Your task to perform on an android device: turn on airplane mode Image 0: 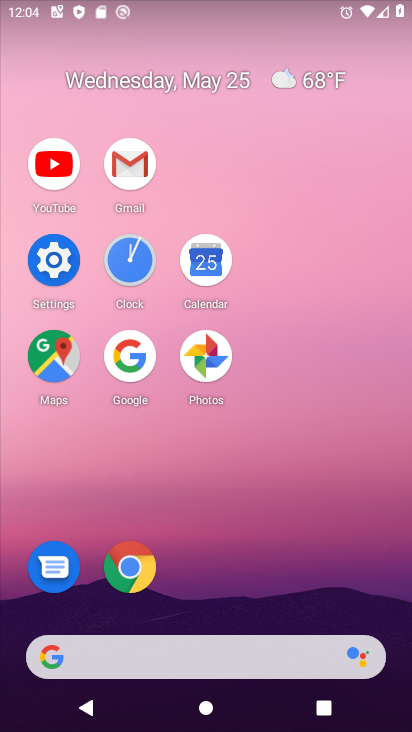
Step 0: click (72, 269)
Your task to perform on an android device: turn on airplane mode Image 1: 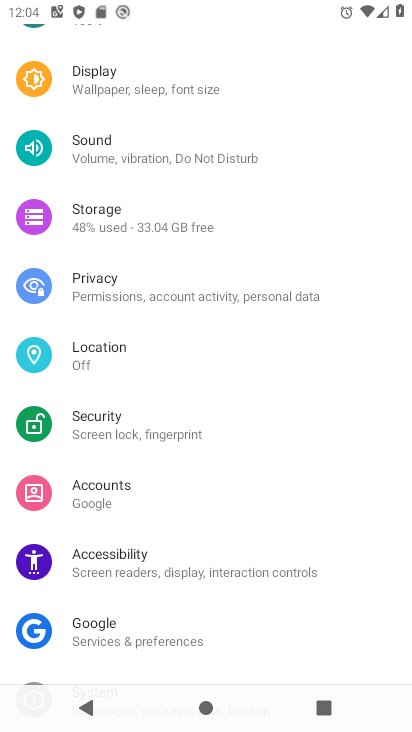
Step 1: drag from (279, 145) to (245, 513)
Your task to perform on an android device: turn on airplane mode Image 2: 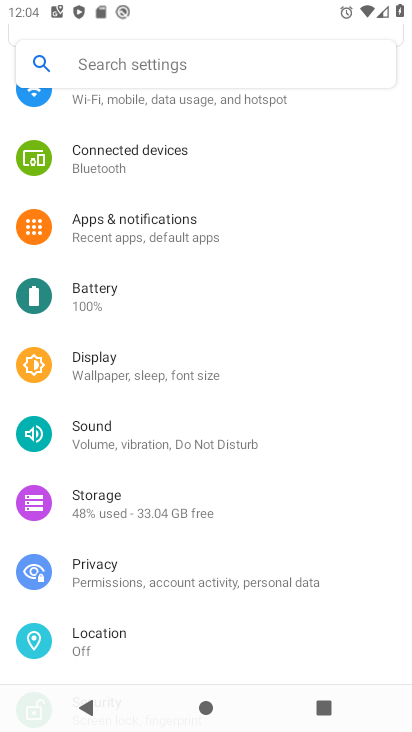
Step 2: drag from (182, 181) to (162, 515)
Your task to perform on an android device: turn on airplane mode Image 3: 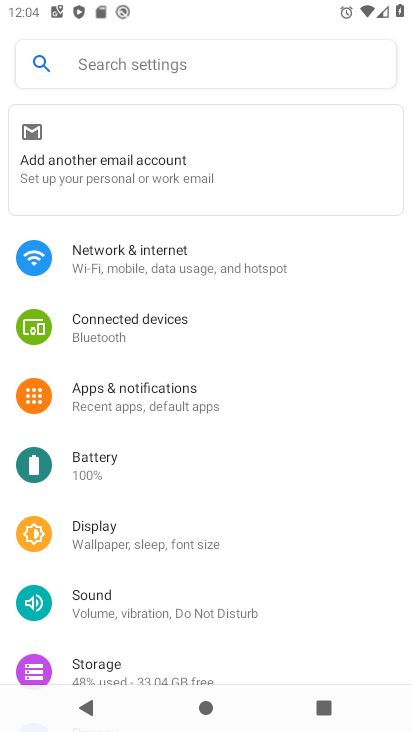
Step 3: click (170, 270)
Your task to perform on an android device: turn on airplane mode Image 4: 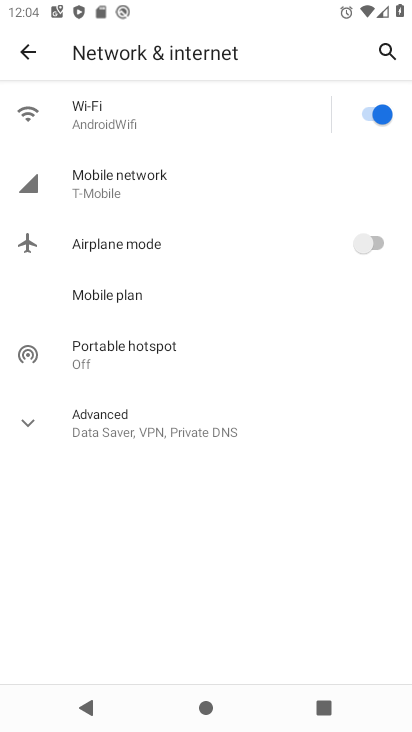
Step 4: click (148, 234)
Your task to perform on an android device: turn on airplane mode Image 5: 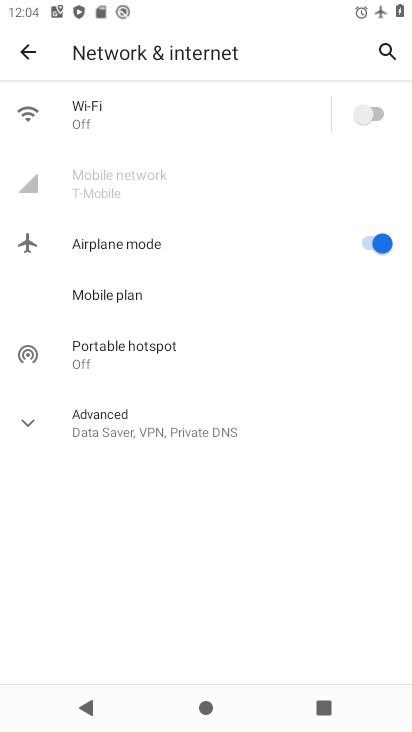
Step 5: task complete